Your task to perform on an android device: Open Google Maps Image 0: 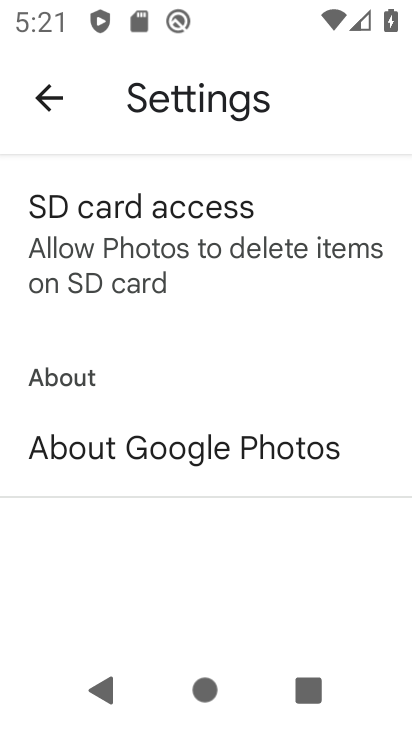
Step 0: press home button
Your task to perform on an android device: Open Google Maps Image 1: 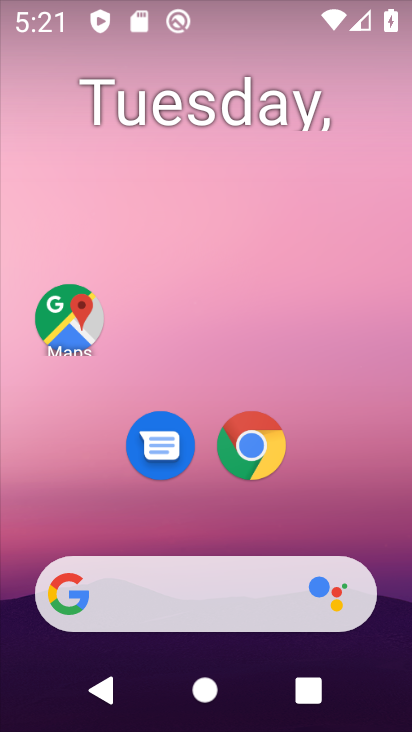
Step 1: drag from (351, 420) to (359, 130)
Your task to perform on an android device: Open Google Maps Image 2: 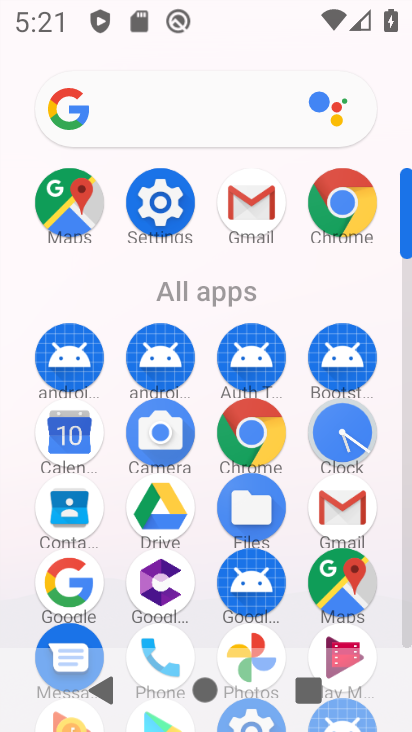
Step 2: click (59, 214)
Your task to perform on an android device: Open Google Maps Image 3: 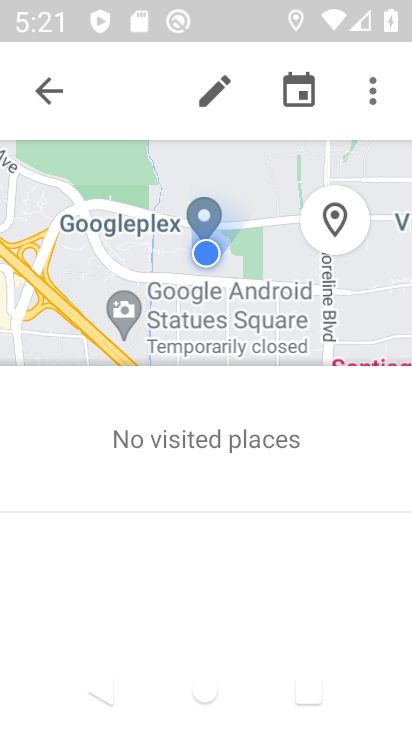
Step 3: click (44, 90)
Your task to perform on an android device: Open Google Maps Image 4: 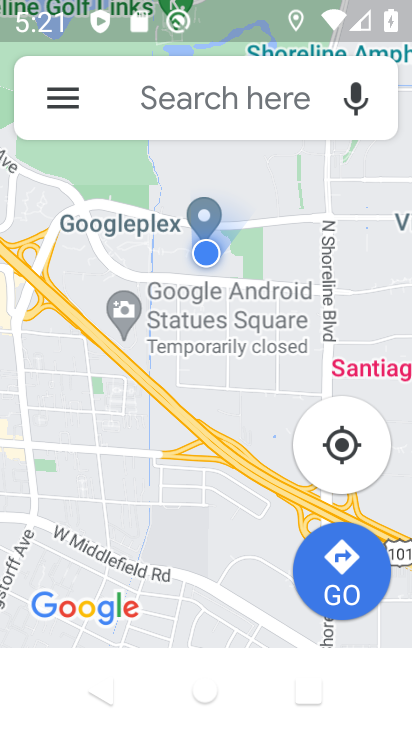
Step 4: task complete